Your task to perform on an android device: Show me popular videos on Youtube Image 0: 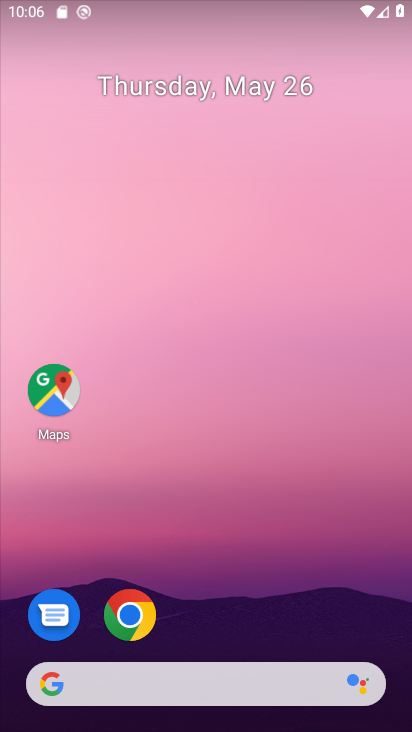
Step 0: drag from (314, 626) to (358, 102)
Your task to perform on an android device: Show me popular videos on Youtube Image 1: 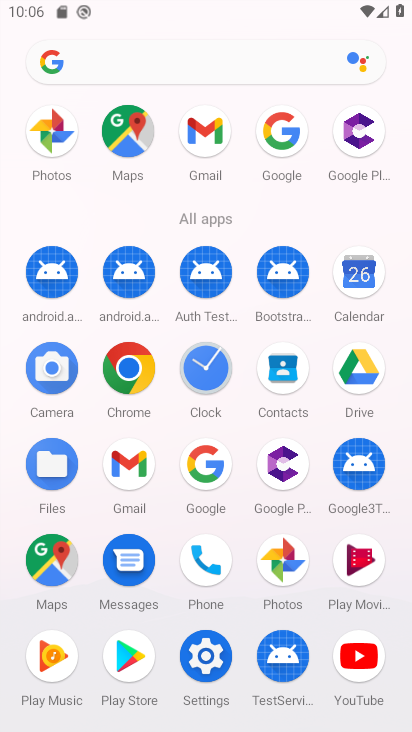
Step 1: click (373, 659)
Your task to perform on an android device: Show me popular videos on Youtube Image 2: 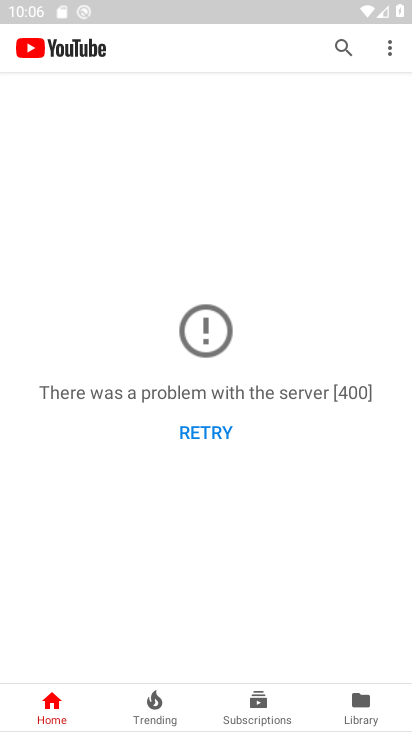
Step 2: click (140, 709)
Your task to perform on an android device: Show me popular videos on Youtube Image 3: 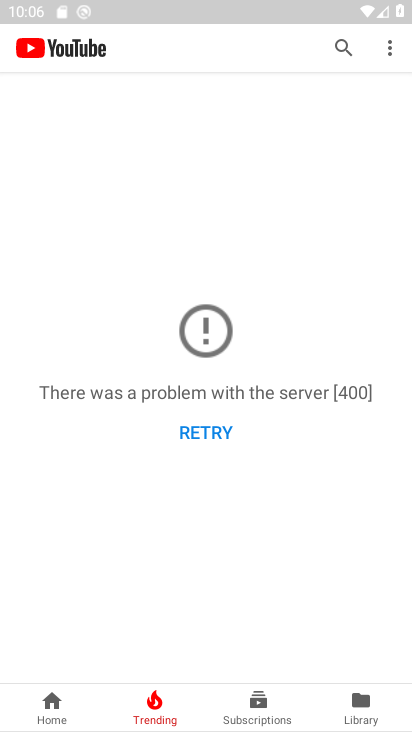
Step 3: click (193, 433)
Your task to perform on an android device: Show me popular videos on Youtube Image 4: 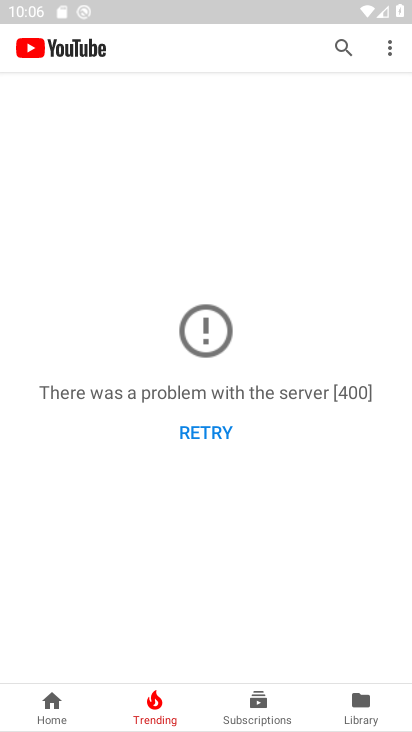
Step 4: task complete